Your task to perform on an android device: toggle pop-ups in chrome Image 0: 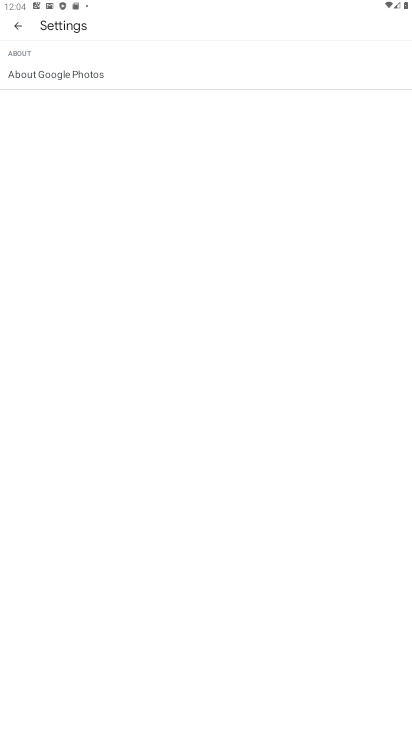
Step 0: press home button
Your task to perform on an android device: toggle pop-ups in chrome Image 1: 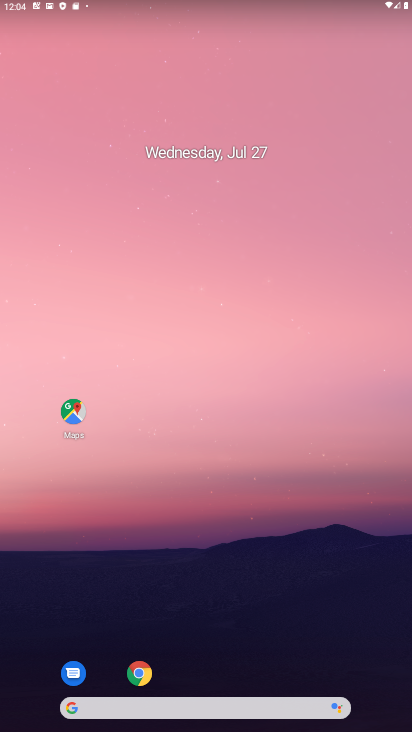
Step 1: click (149, 674)
Your task to perform on an android device: toggle pop-ups in chrome Image 2: 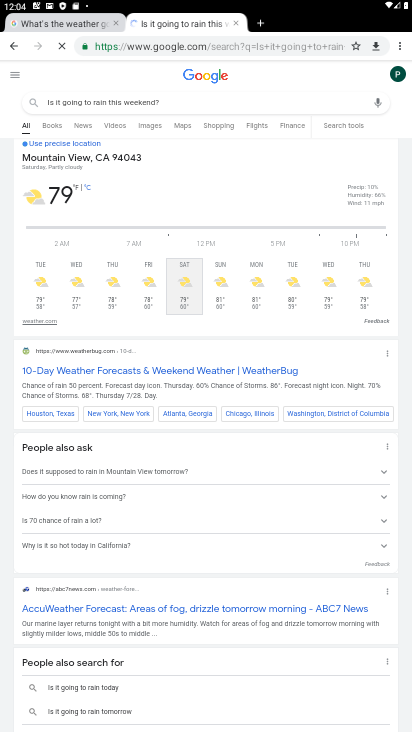
Step 2: click (408, 42)
Your task to perform on an android device: toggle pop-ups in chrome Image 3: 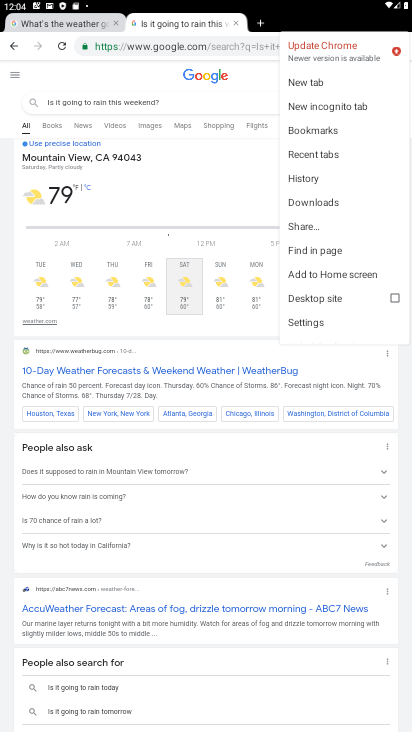
Step 3: click (312, 316)
Your task to perform on an android device: toggle pop-ups in chrome Image 4: 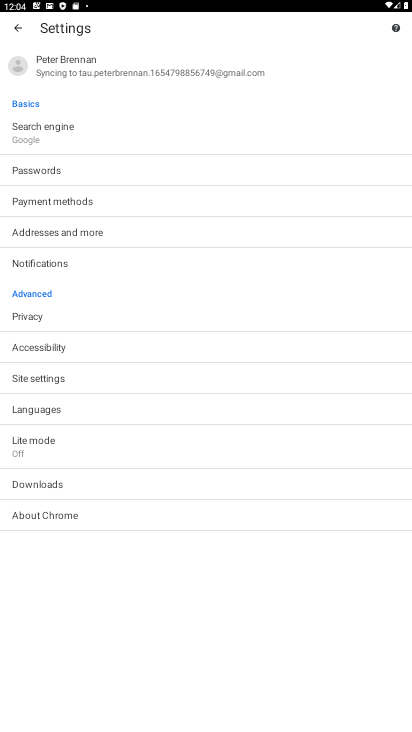
Step 4: click (94, 377)
Your task to perform on an android device: toggle pop-ups in chrome Image 5: 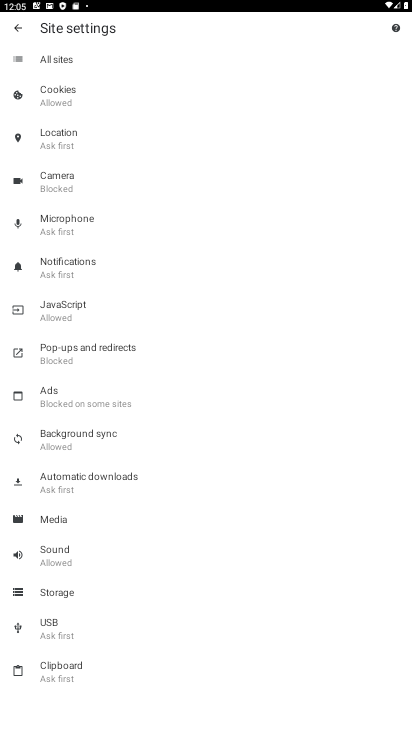
Step 5: click (93, 353)
Your task to perform on an android device: toggle pop-ups in chrome Image 6: 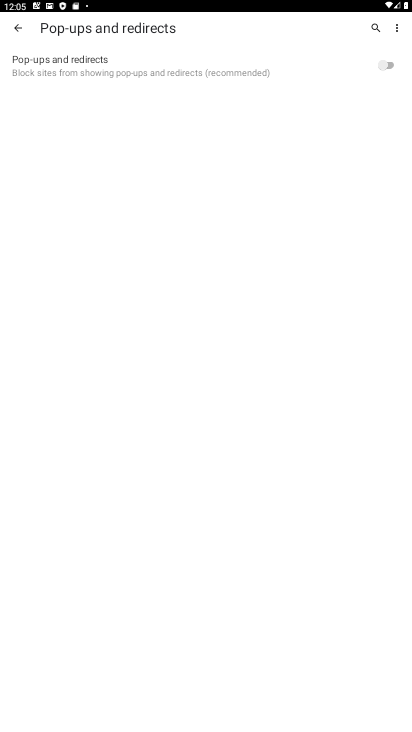
Step 6: click (374, 66)
Your task to perform on an android device: toggle pop-ups in chrome Image 7: 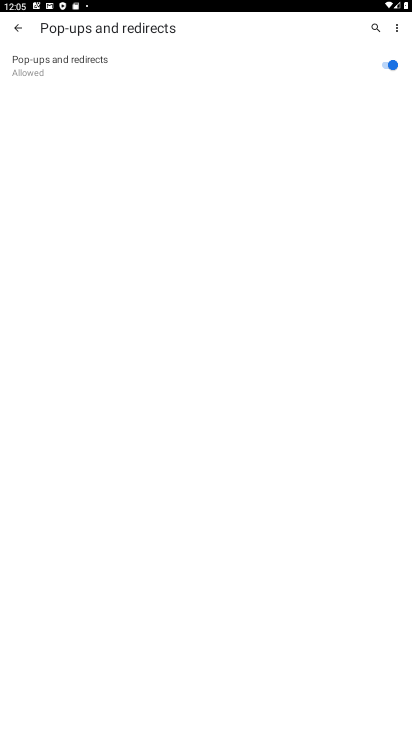
Step 7: task complete